Your task to perform on an android device: What's on Reddit today Image 0: 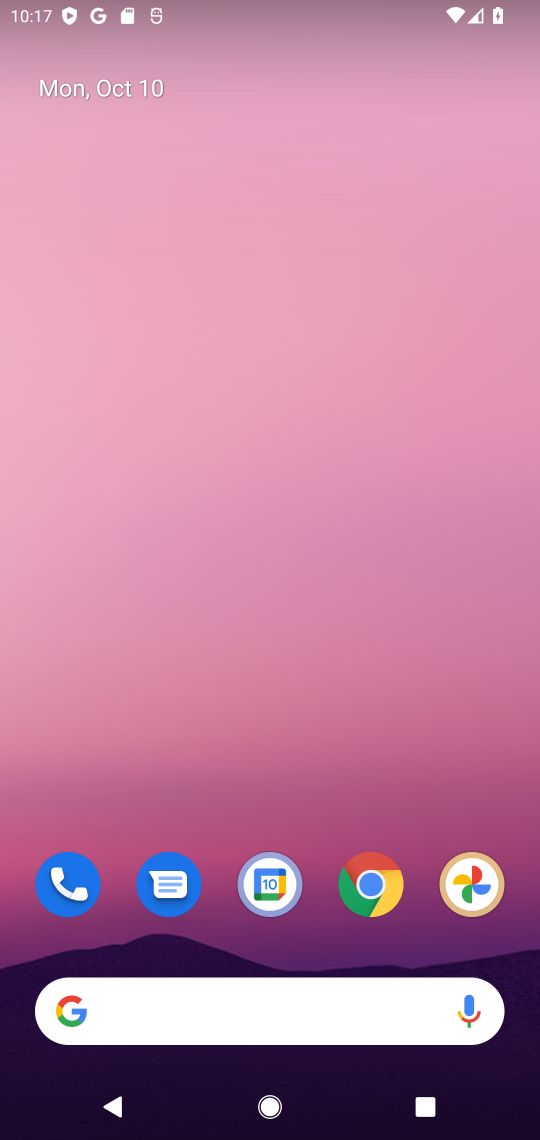
Step 0: drag from (349, 911) to (319, 116)
Your task to perform on an android device: What's on Reddit today Image 1: 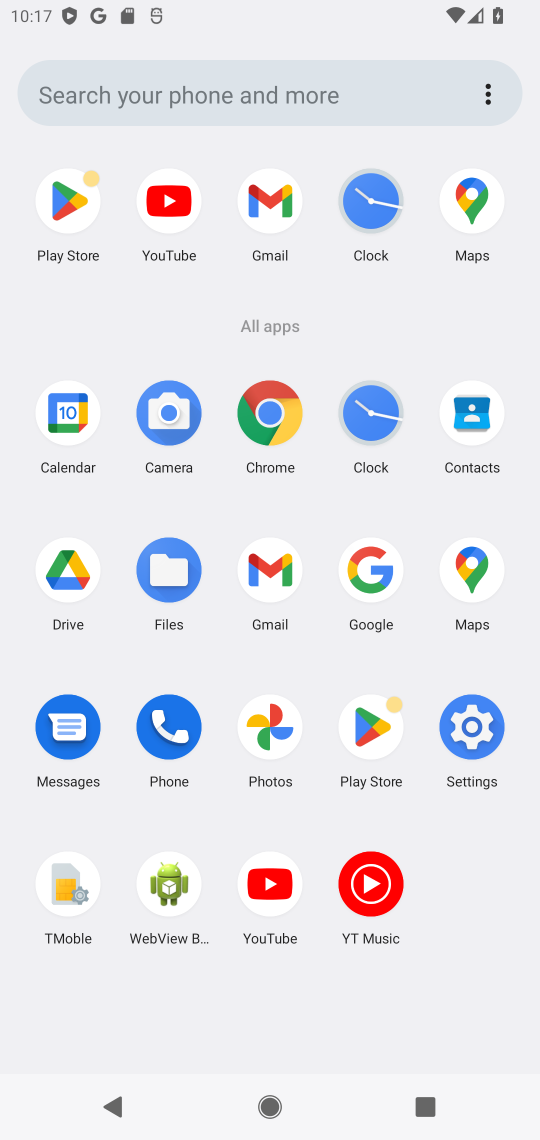
Step 1: click (366, 559)
Your task to perform on an android device: What's on Reddit today Image 2: 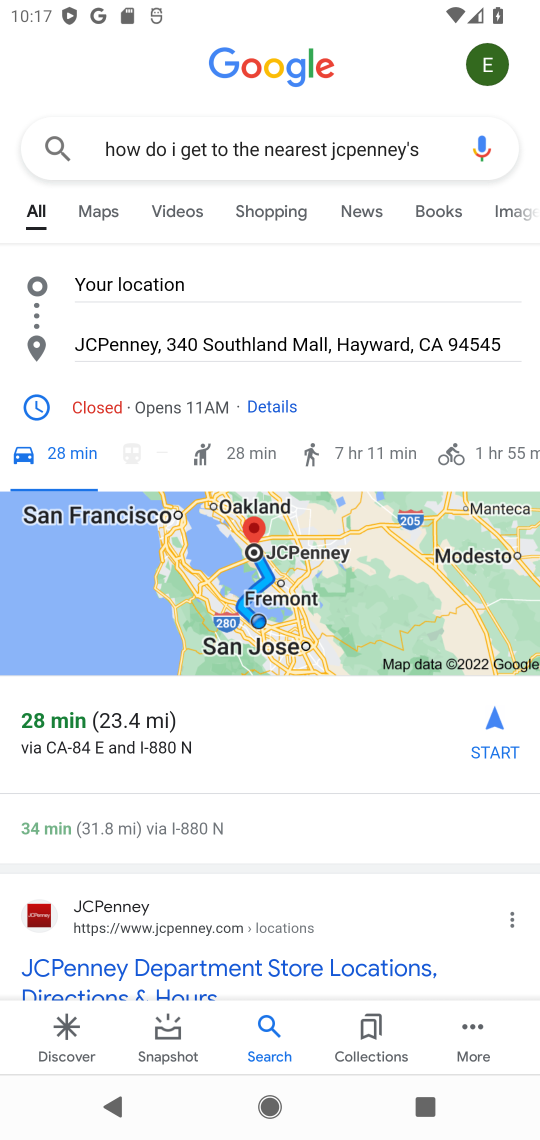
Step 2: click (236, 150)
Your task to perform on an android device: What's on Reddit today Image 3: 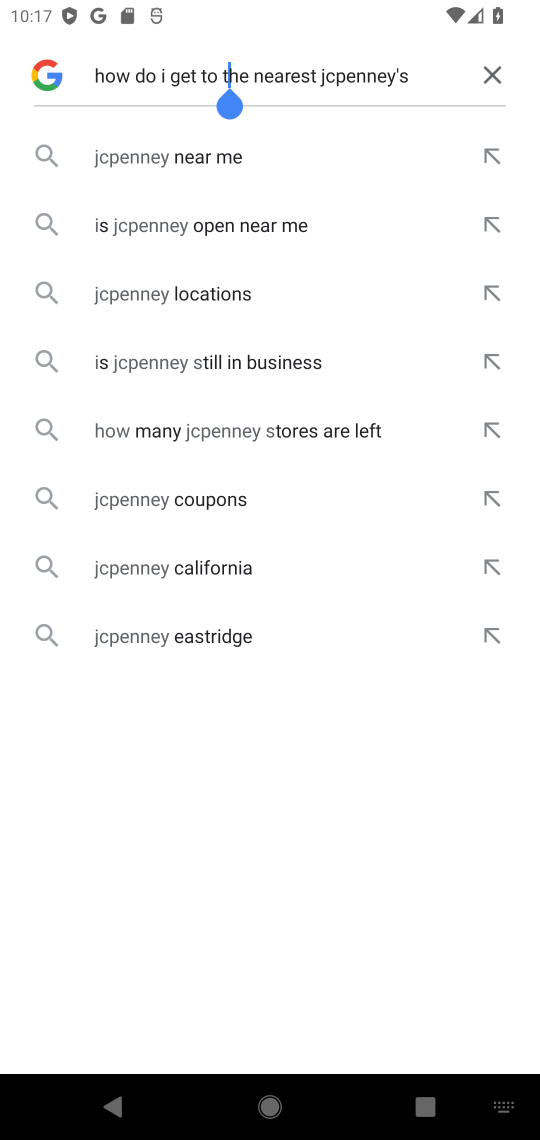
Step 3: click (486, 73)
Your task to perform on an android device: What's on Reddit today Image 4: 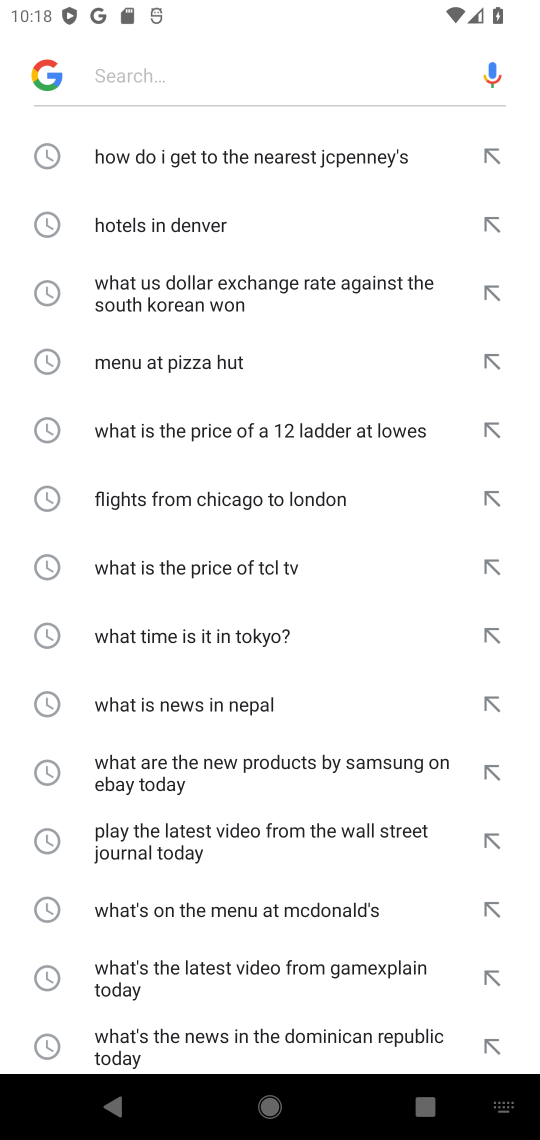
Step 4: type "What's on Reddit today"
Your task to perform on an android device: What's on Reddit today Image 5: 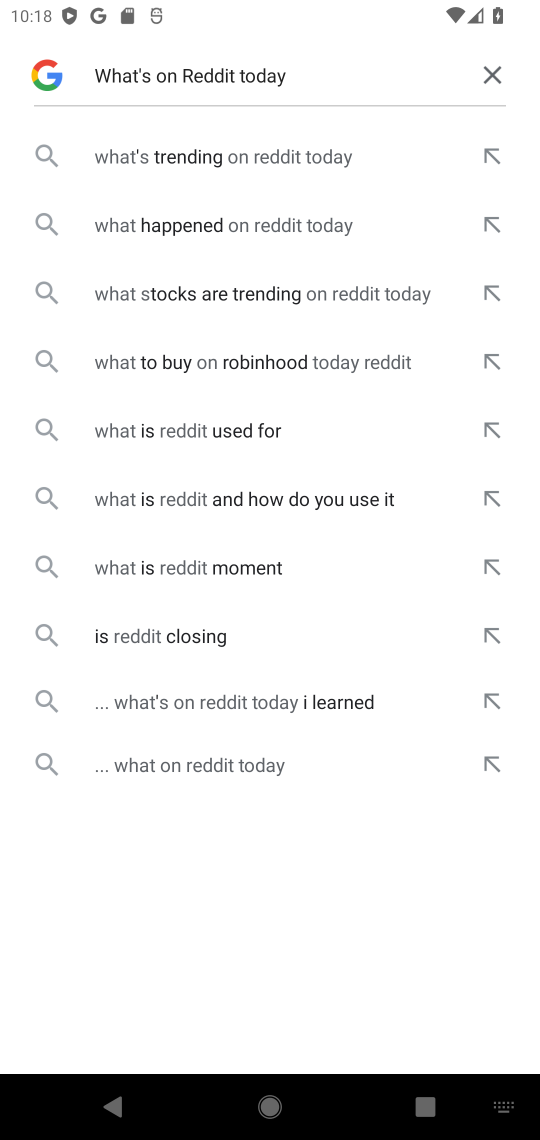
Step 5: click (205, 764)
Your task to perform on an android device: What's on Reddit today Image 6: 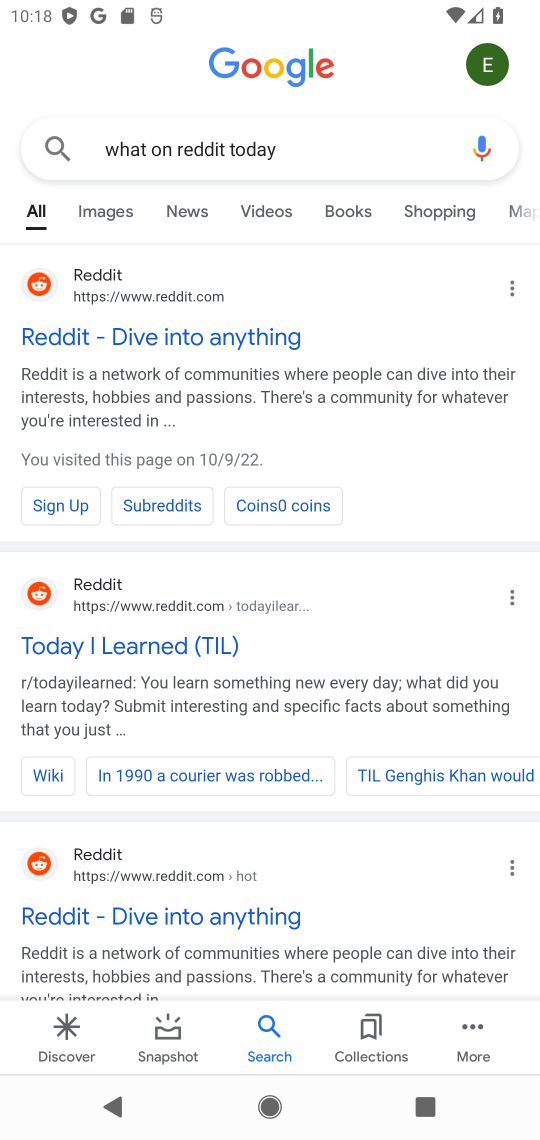
Step 6: click (103, 646)
Your task to perform on an android device: What's on Reddit today Image 7: 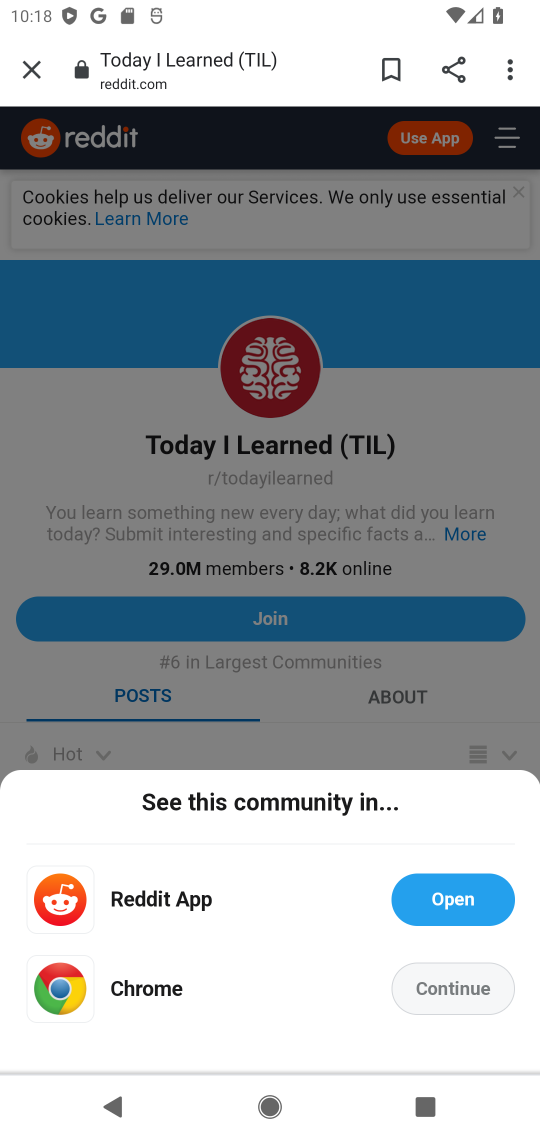
Step 7: task complete